Your task to perform on an android device: Open Google Image 0: 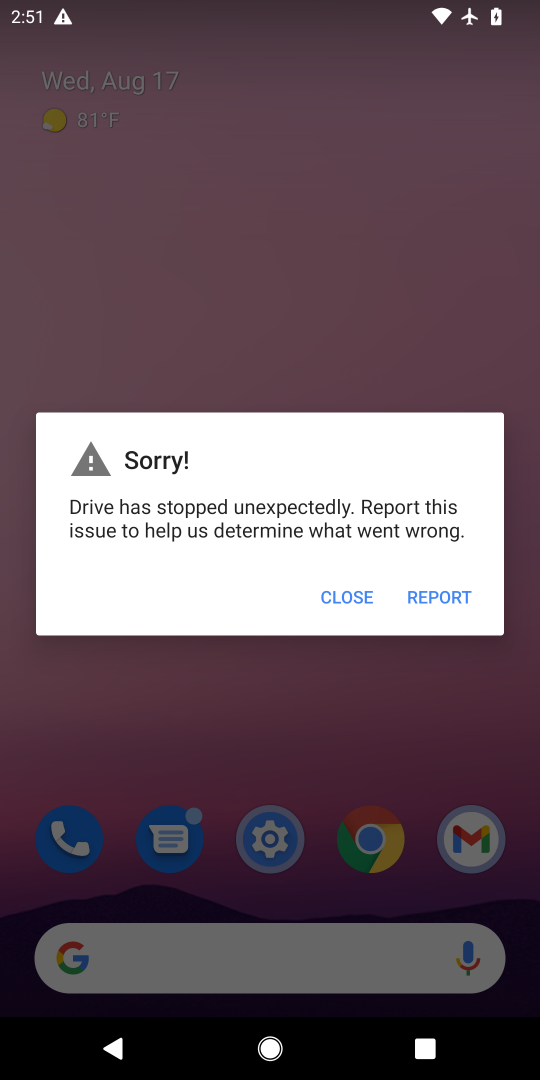
Step 0: press home button
Your task to perform on an android device: Open Google Image 1: 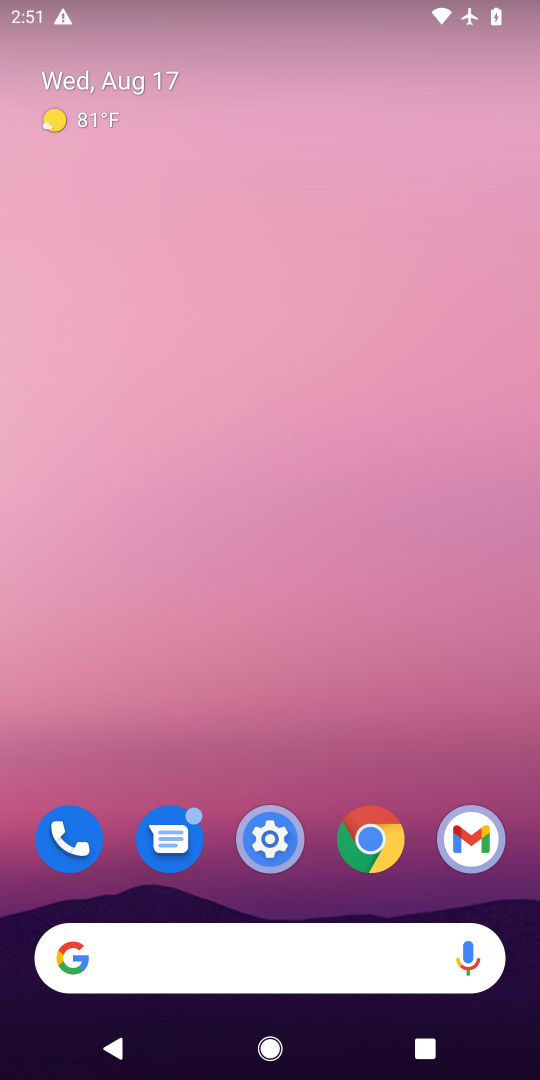
Step 1: drag from (316, 647) to (316, 22)
Your task to perform on an android device: Open Google Image 2: 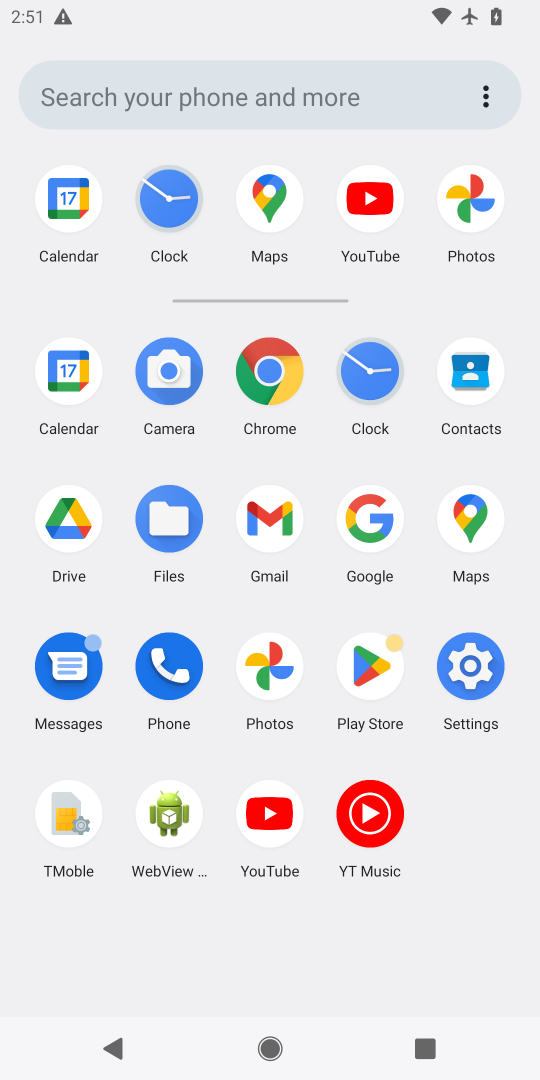
Step 2: click (376, 528)
Your task to perform on an android device: Open Google Image 3: 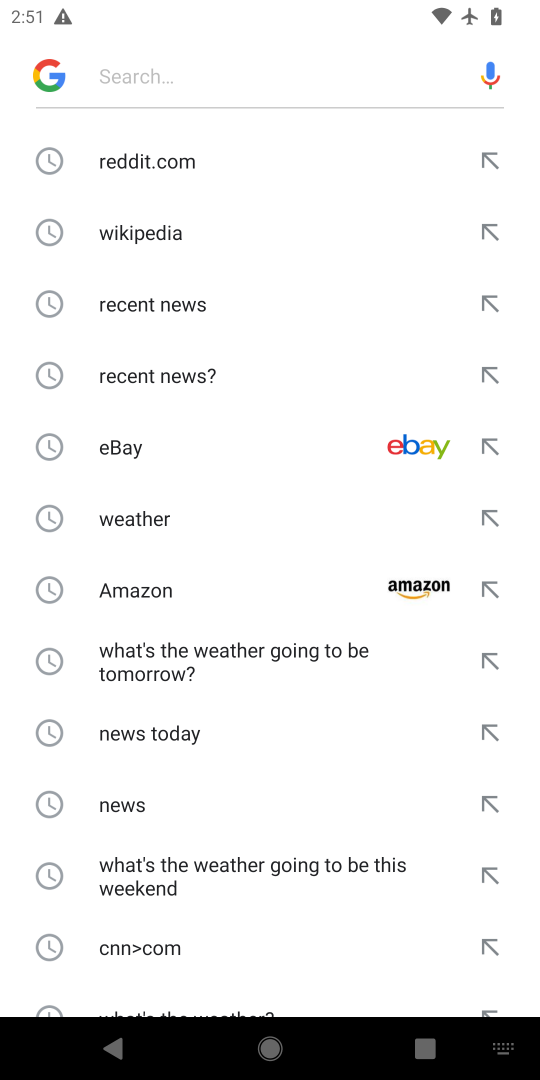
Step 3: task complete